Your task to perform on an android device: turn off location Image 0: 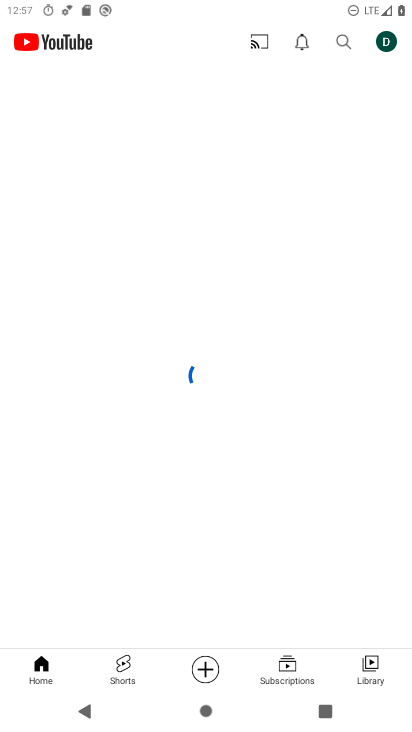
Step 0: drag from (253, 597) to (297, 178)
Your task to perform on an android device: turn off location Image 1: 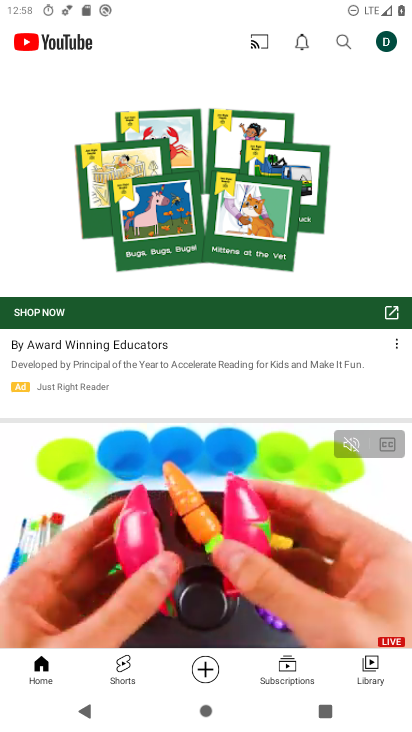
Step 1: press home button
Your task to perform on an android device: turn off location Image 2: 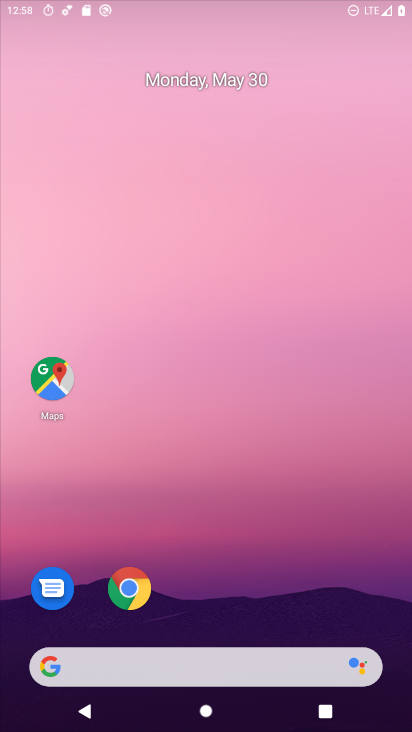
Step 2: drag from (247, 599) to (348, 34)
Your task to perform on an android device: turn off location Image 3: 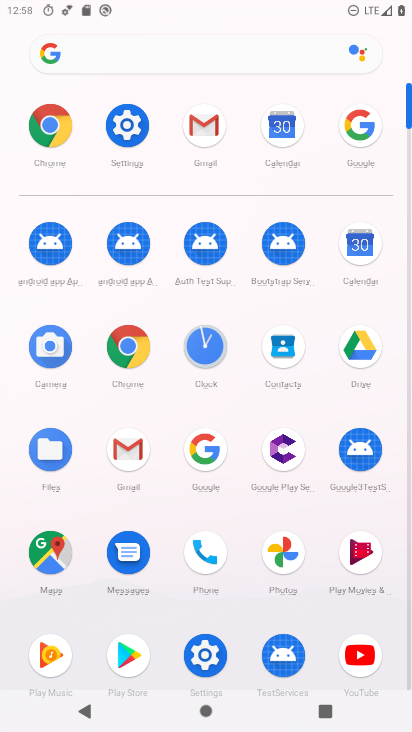
Step 3: click (132, 132)
Your task to perform on an android device: turn off location Image 4: 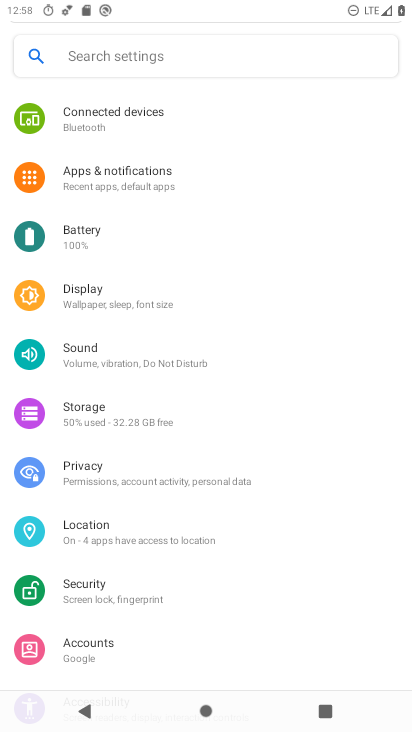
Step 4: click (136, 528)
Your task to perform on an android device: turn off location Image 5: 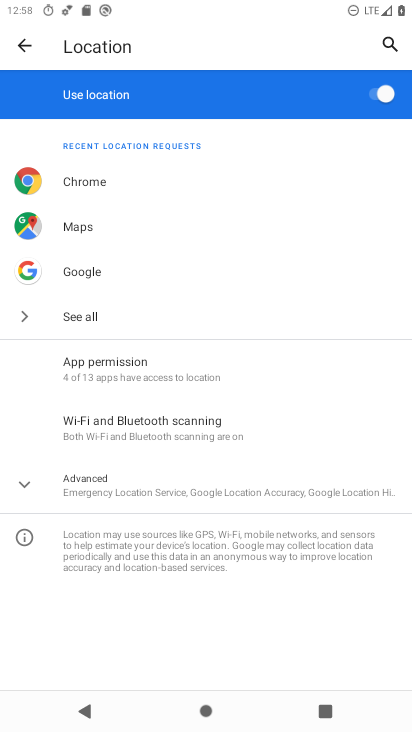
Step 5: click (381, 102)
Your task to perform on an android device: turn off location Image 6: 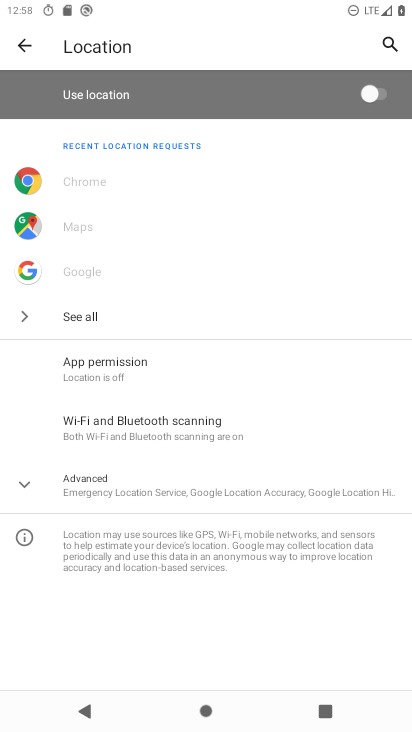
Step 6: task complete